Your task to perform on an android device: all mails in gmail Image 0: 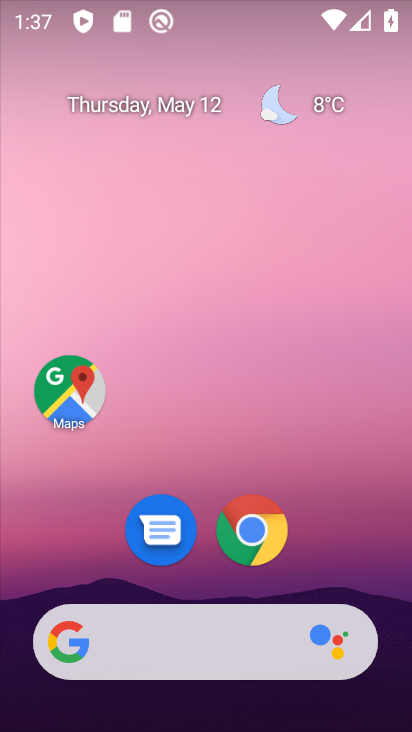
Step 0: drag from (51, 628) to (403, 141)
Your task to perform on an android device: all mails in gmail Image 1: 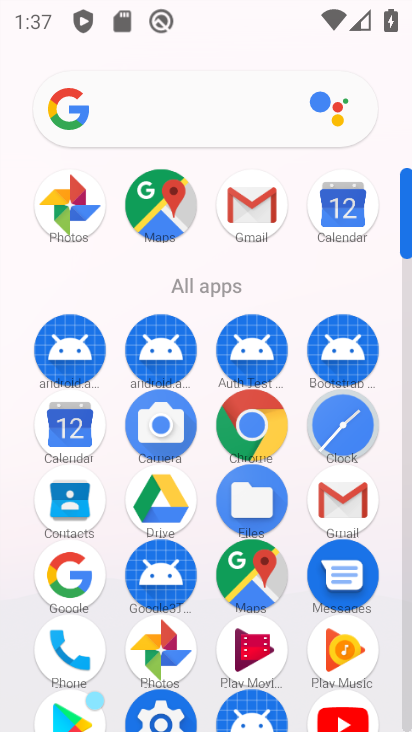
Step 1: click (258, 206)
Your task to perform on an android device: all mails in gmail Image 2: 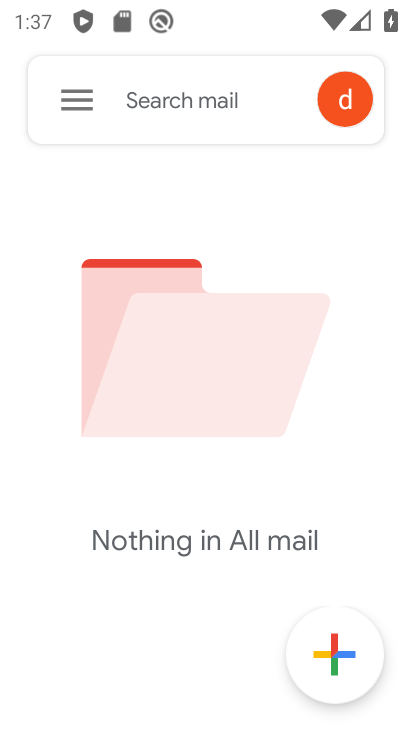
Step 2: click (78, 97)
Your task to perform on an android device: all mails in gmail Image 3: 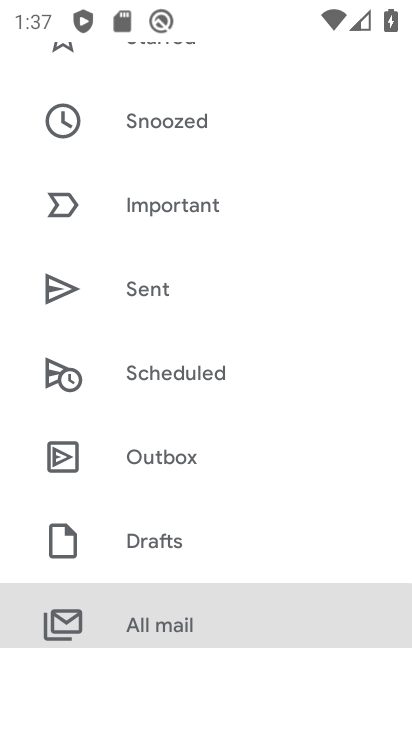
Step 3: click (107, 602)
Your task to perform on an android device: all mails in gmail Image 4: 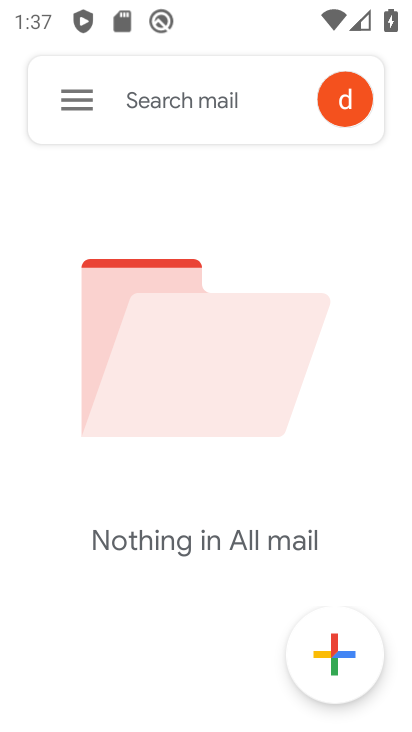
Step 4: task complete